Your task to perform on an android device: read, delete, or share a saved page in the chrome app Image 0: 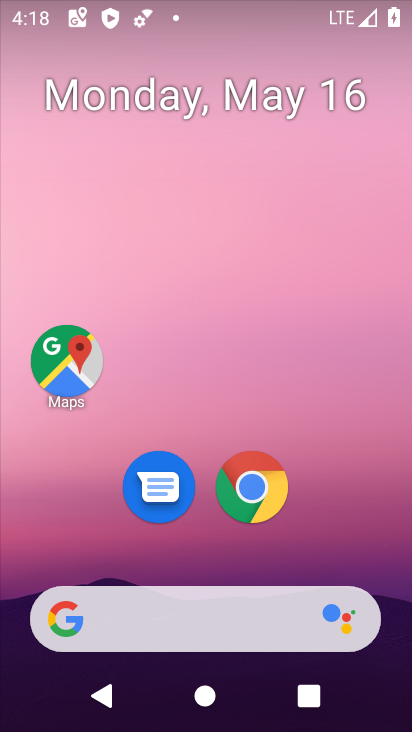
Step 0: click (251, 484)
Your task to perform on an android device: read, delete, or share a saved page in the chrome app Image 1: 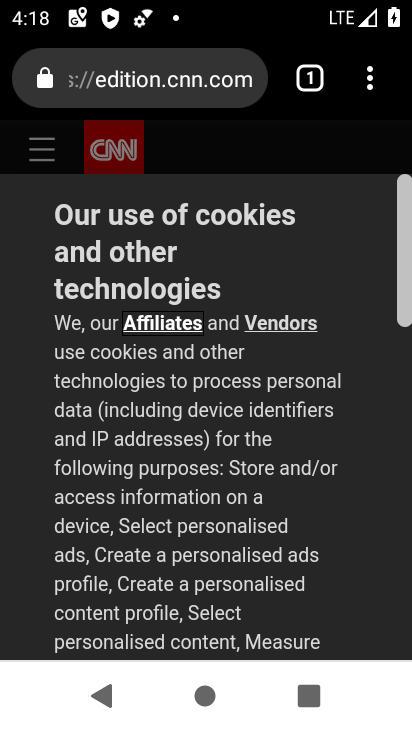
Step 1: click (373, 85)
Your task to perform on an android device: read, delete, or share a saved page in the chrome app Image 2: 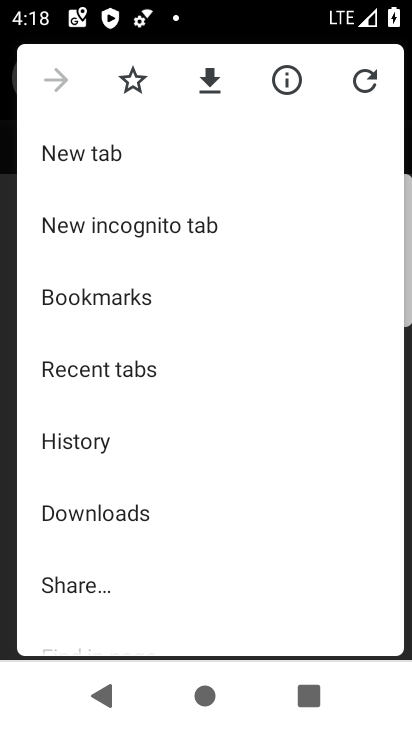
Step 2: click (98, 509)
Your task to perform on an android device: read, delete, or share a saved page in the chrome app Image 3: 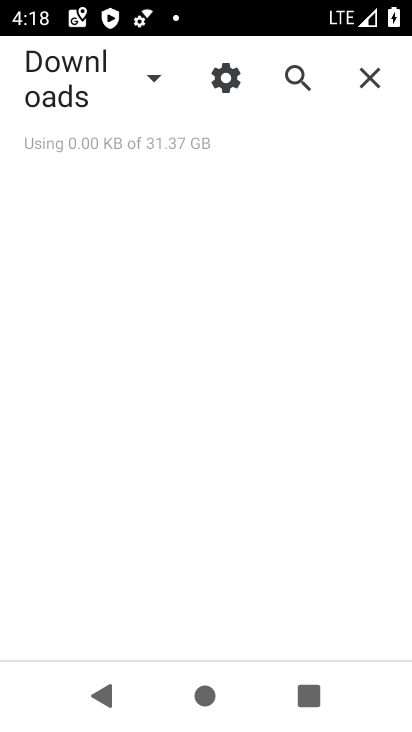
Step 3: click (146, 69)
Your task to perform on an android device: read, delete, or share a saved page in the chrome app Image 4: 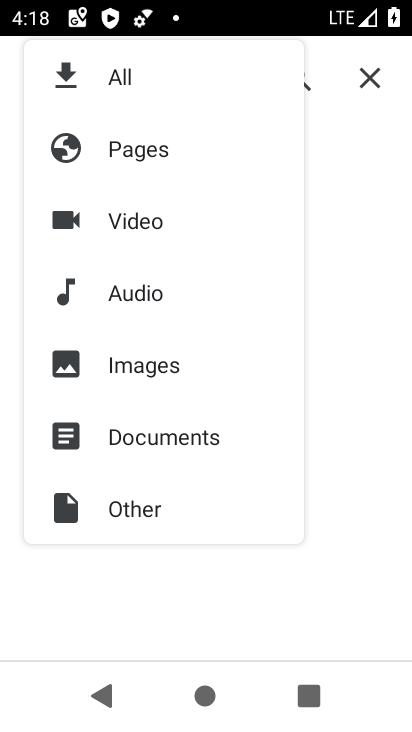
Step 4: click (130, 144)
Your task to perform on an android device: read, delete, or share a saved page in the chrome app Image 5: 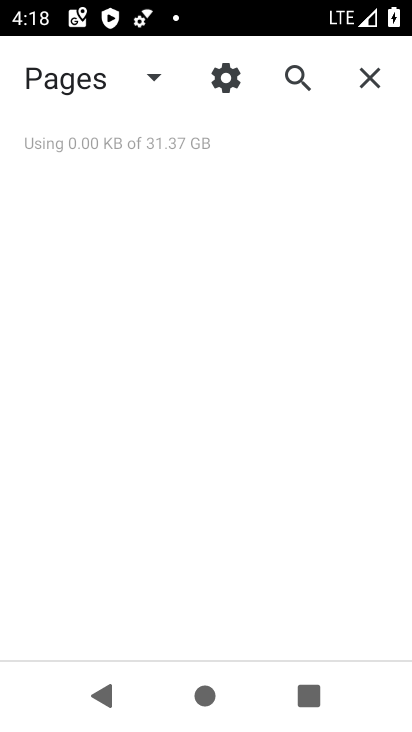
Step 5: task complete